Your task to perform on an android device: manage bookmarks in the chrome app Image 0: 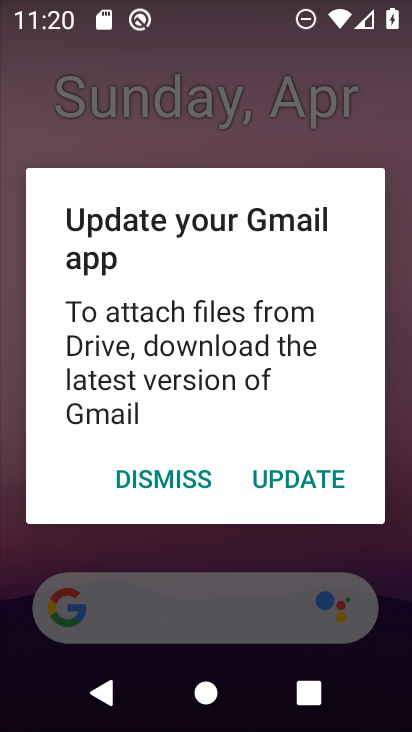
Step 0: press home button
Your task to perform on an android device: manage bookmarks in the chrome app Image 1: 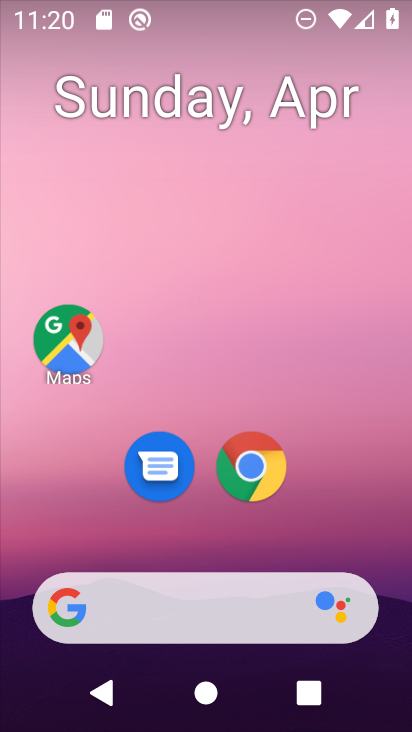
Step 1: drag from (360, 532) to (361, 111)
Your task to perform on an android device: manage bookmarks in the chrome app Image 2: 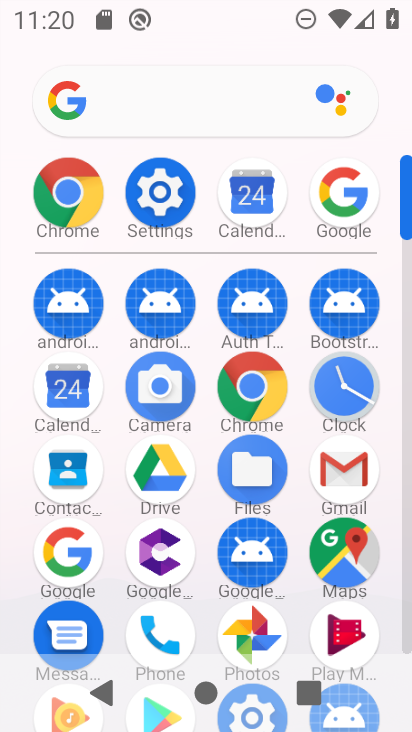
Step 2: click (264, 392)
Your task to perform on an android device: manage bookmarks in the chrome app Image 3: 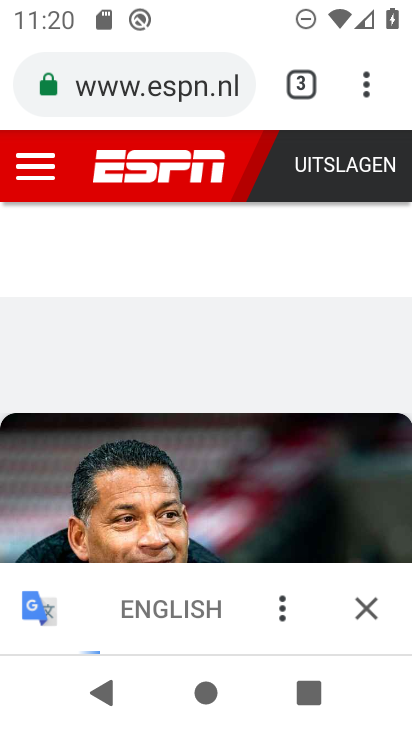
Step 3: click (367, 70)
Your task to perform on an android device: manage bookmarks in the chrome app Image 4: 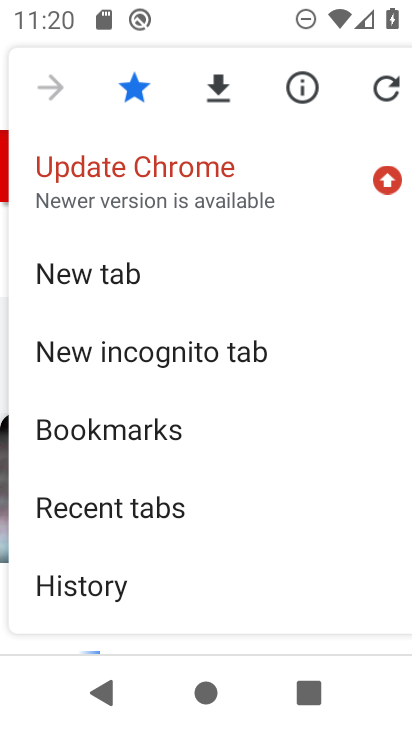
Step 4: click (168, 435)
Your task to perform on an android device: manage bookmarks in the chrome app Image 5: 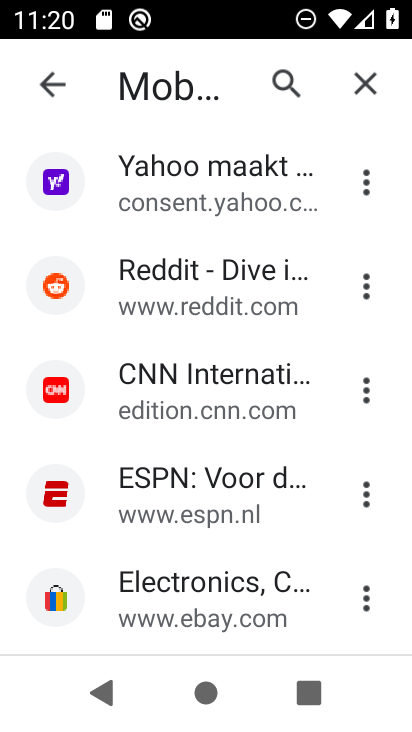
Step 5: click (367, 288)
Your task to perform on an android device: manage bookmarks in the chrome app Image 6: 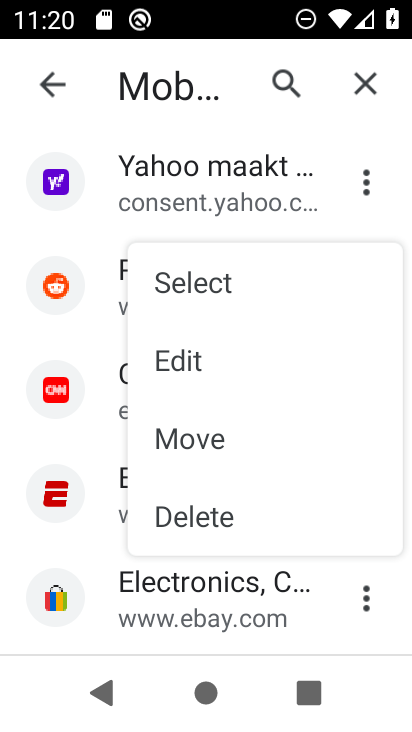
Step 6: click (201, 357)
Your task to perform on an android device: manage bookmarks in the chrome app Image 7: 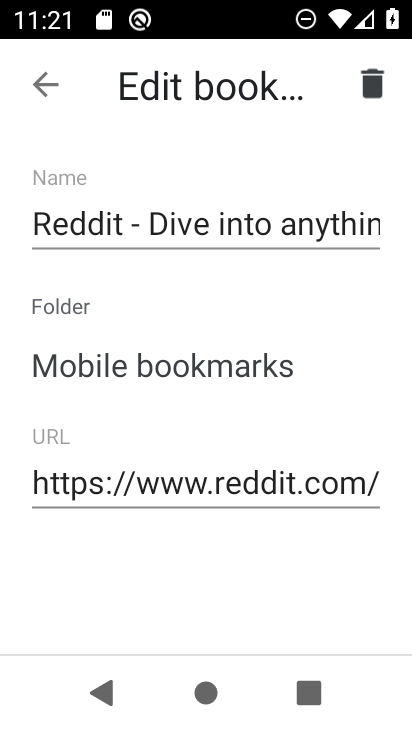
Step 7: click (215, 222)
Your task to perform on an android device: manage bookmarks in the chrome app Image 8: 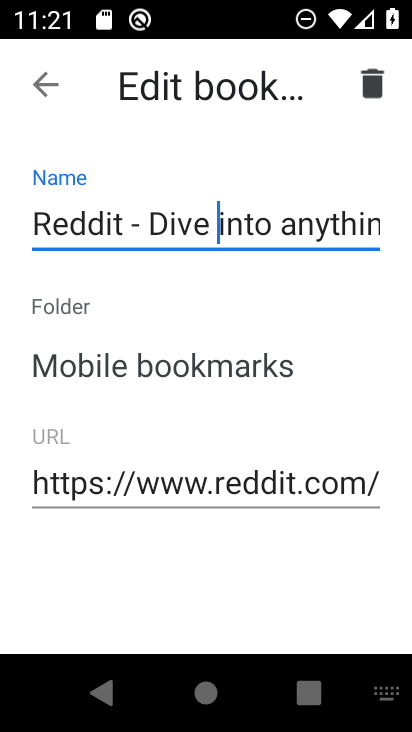
Step 8: type "i"
Your task to perform on an android device: manage bookmarks in the chrome app Image 9: 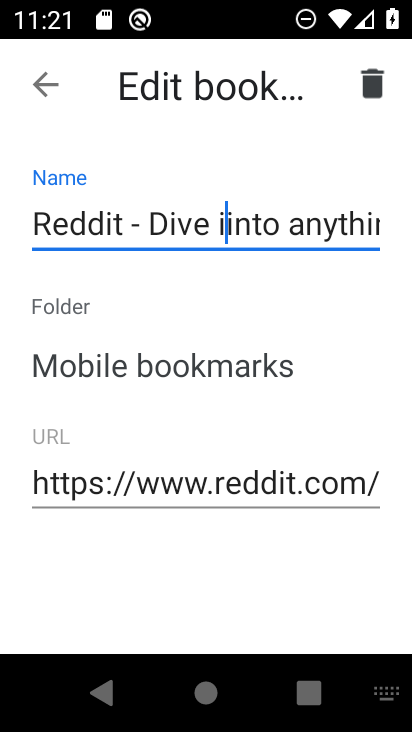
Step 9: click (53, 85)
Your task to perform on an android device: manage bookmarks in the chrome app Image 10: 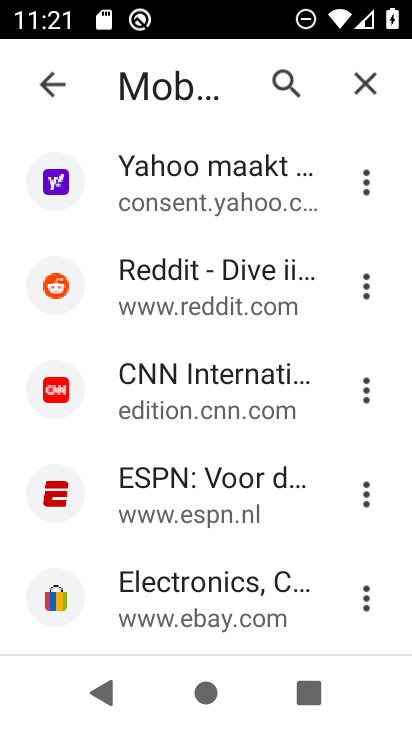
Step 10: task complete